Your task to perform on an android device: What's the weather like in Rio de Janeiro? Image 0: 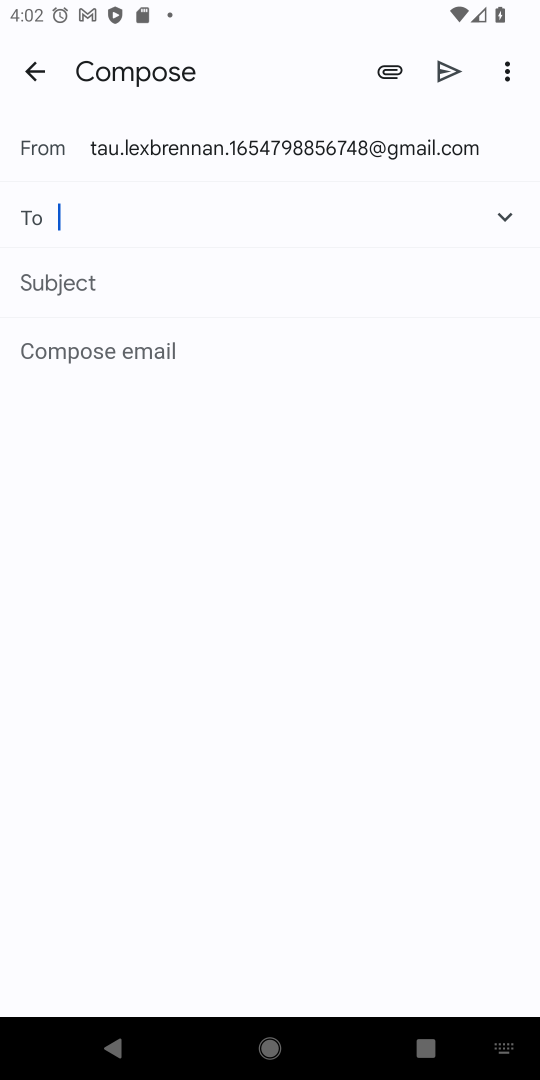
Step 0: press home button
Your task to perform on an android device: What's the weather like in Rio de Janeiro? Image 1: 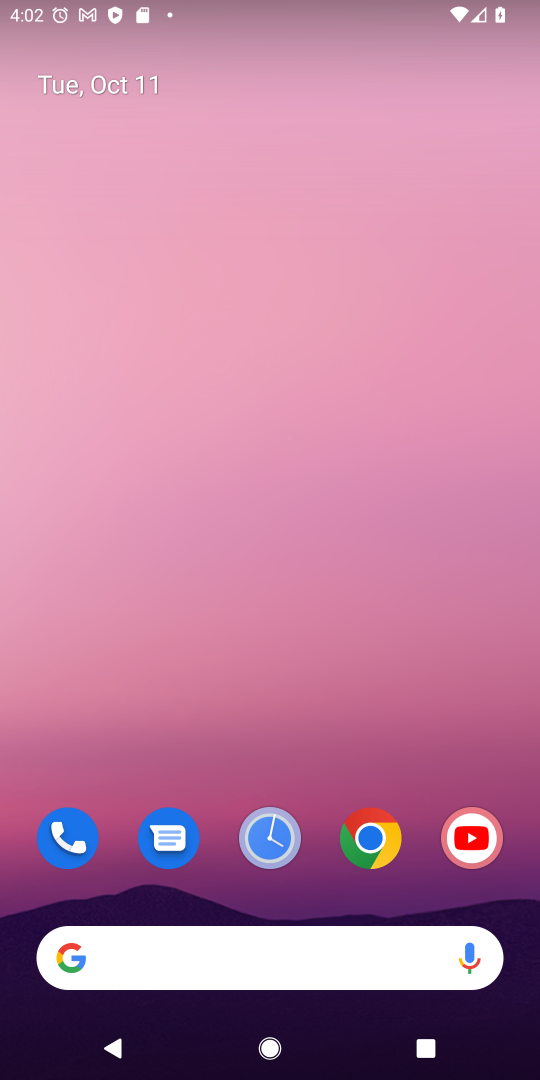
Step 1: click (359, 957)
Your task to perform on an android device: What's the weather like in Rio de Janeiro? Image 2: 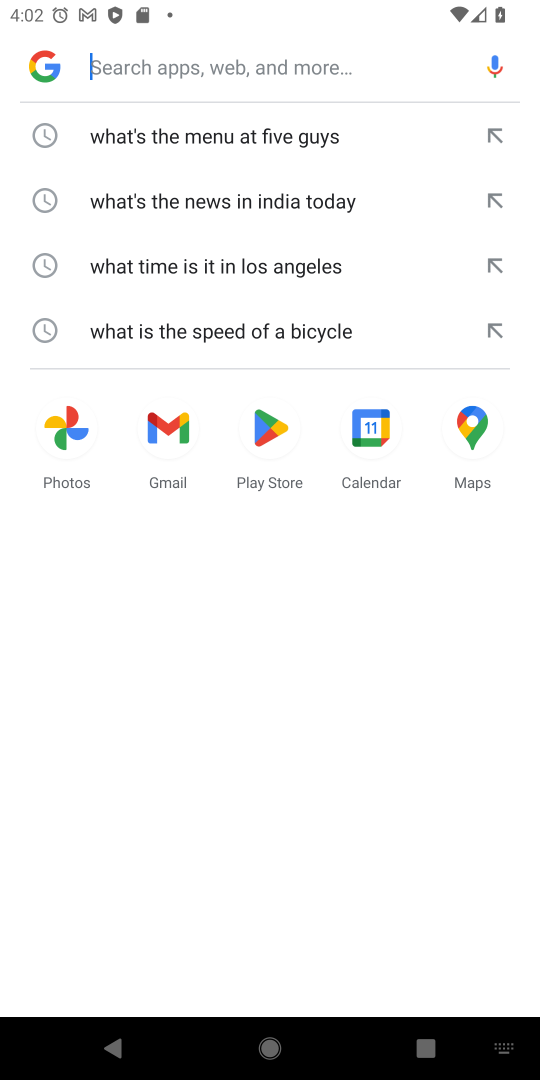
Step 2: click (135, 66)
Your task to perform on an android device: What's the weather like in Rio de Janeiro? Image 3: 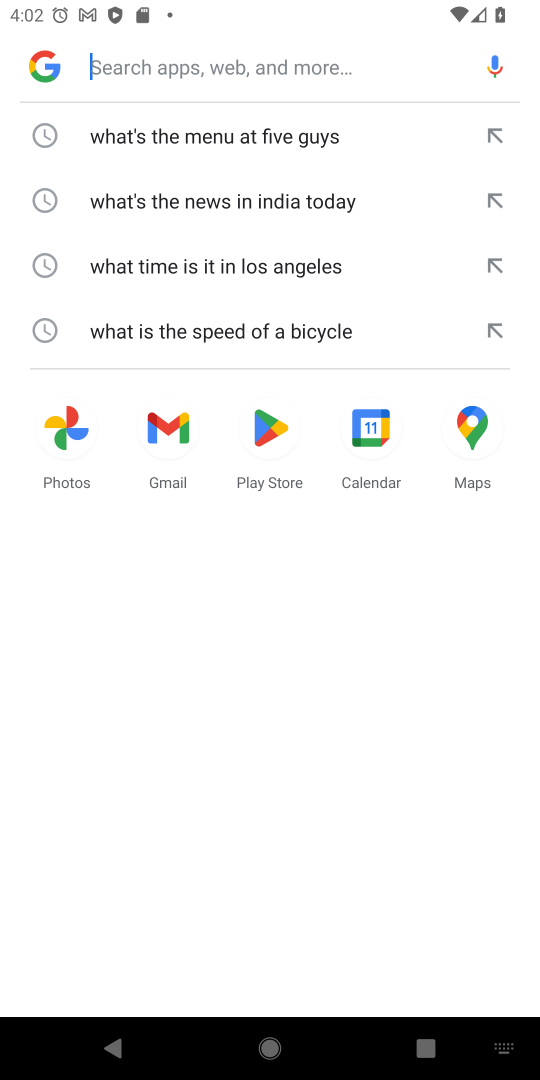
Step 3: type "What's the weather like in Rio de Janeiro?"
Your task to perform on an android device: What's the weather like in Rio de Janeiro? Image 4: 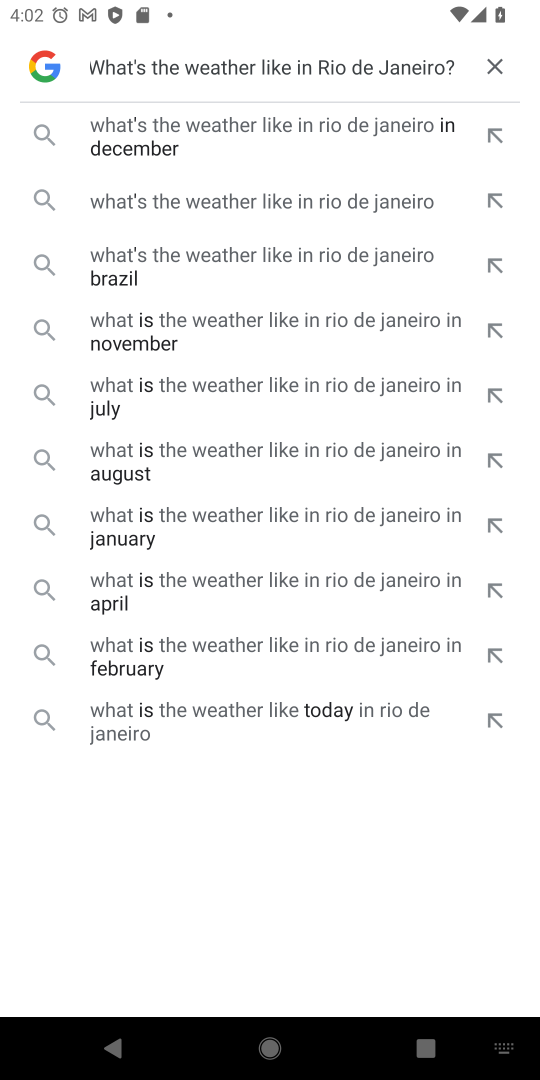
Step 4: click (255, 194)
Your task to perform on an android device: What's the weather like in Rio de Janeiro? Image 5: 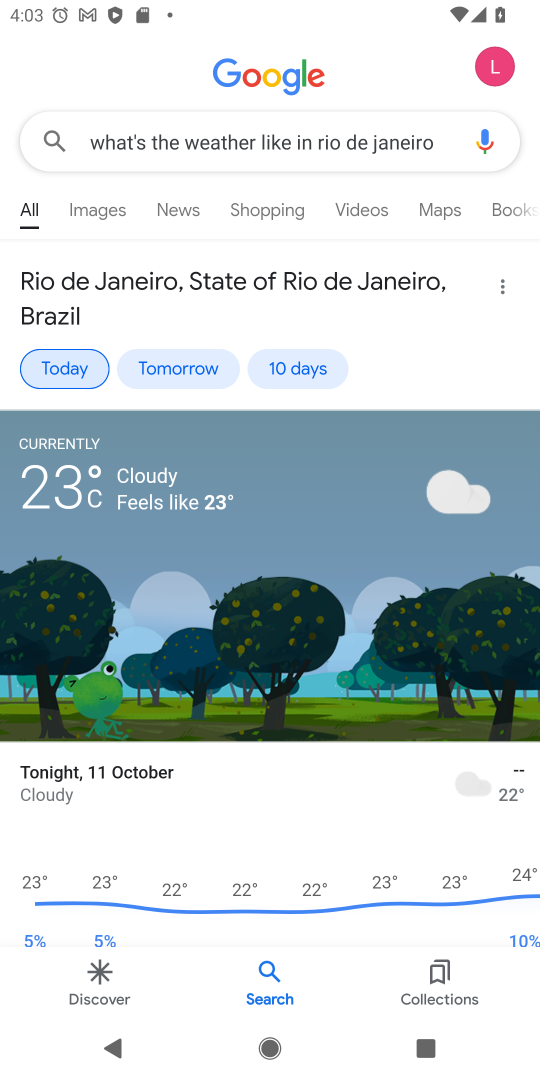
Step 5: task complete